Your task to perform on an android device: Do I have any events tomorrow? Image 0: 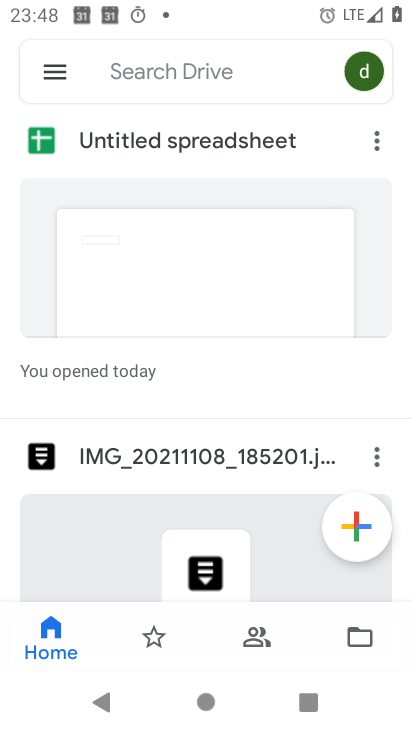
Step 0: press home button
Your task to perform on an android device: Do I have any events tomorrow? Image 1: 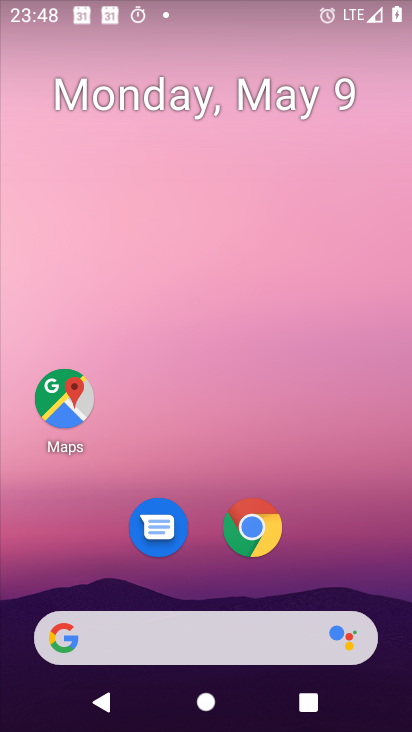
Step 1: drag from (206, 560) to (273, 90)
Your task to perform on an android device: Do I have any events tomorrow? Image 2: 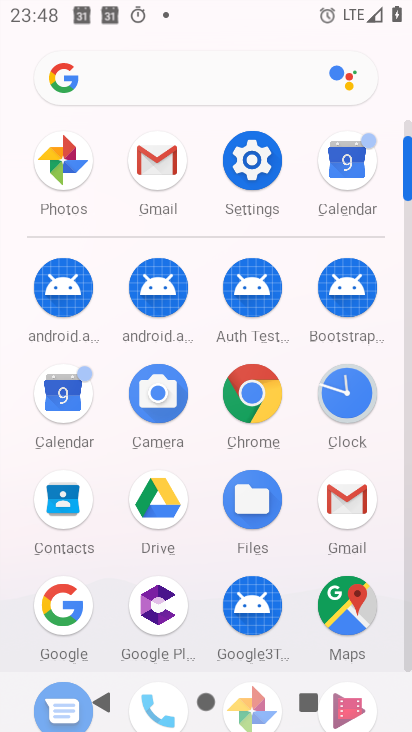
Step 2: click (68, 394)
Your task to perform on an android device: Do I have any events tomorrow? Image 3: 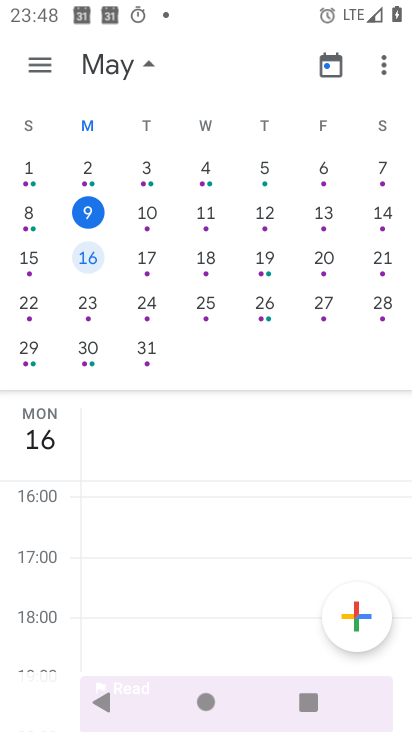
Step 3: click (143, 210)
Your task to perform on an android device: Do I have any events tomorrow? Image 4: 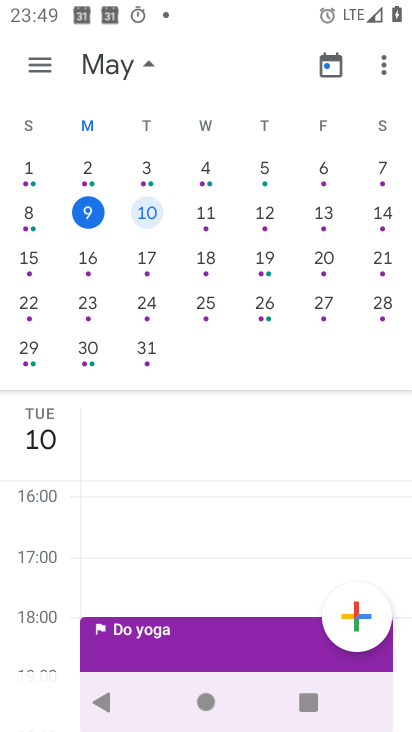
Step 4: task complete